Your task to perform on an android device: Go to eBay Image 0: 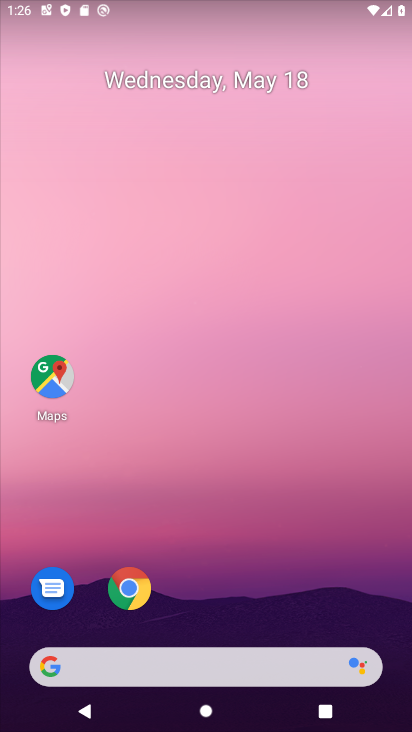
Step 0: drag from (337, 582) to (305, 102)
Your task to perform on an android device: Go to eBay Image 1: 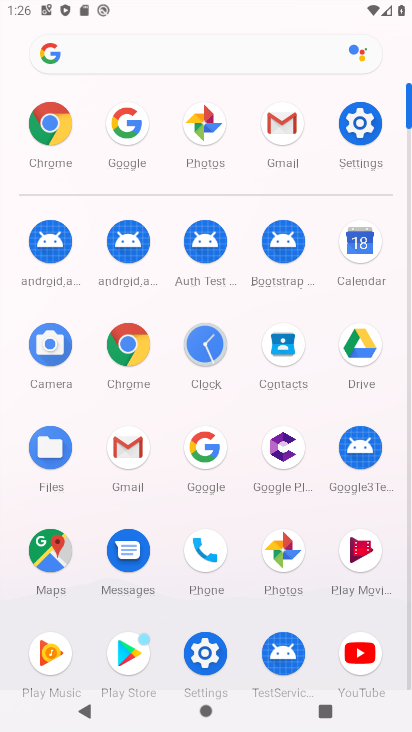
Step 1: click (145, 340)
Your task to perform on an android device: Go to eBay Image 2: 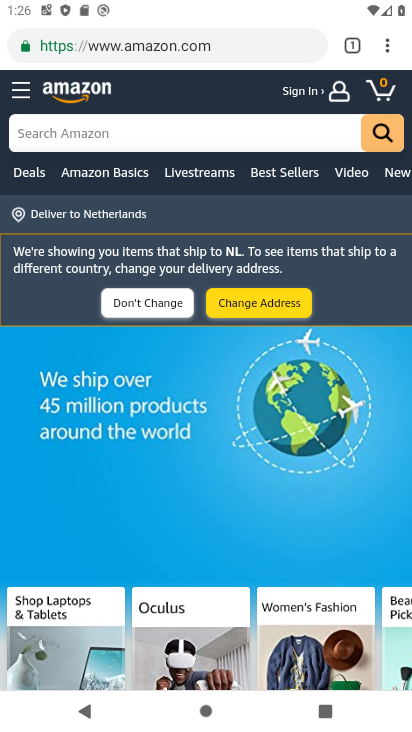
Step 2: press back button
Your task to perform on an android device: Go to eBay Image 3: 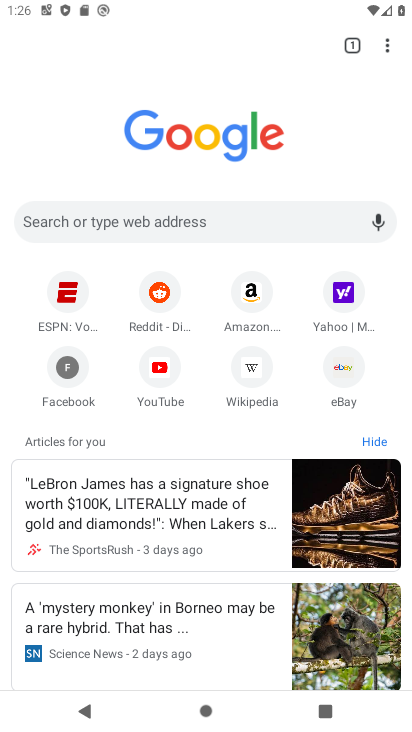
Step 3: click (338, 369)
Your task to perform on an android device: Go to eBay Image 4: 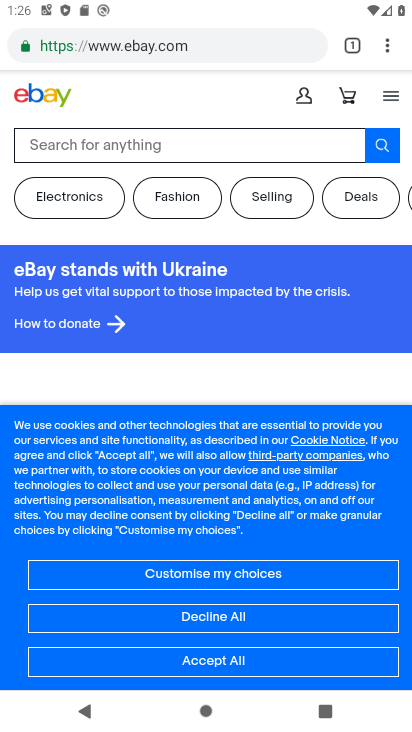
Step 4: task complete